Your task to perform on an android device: Open Maps and search for coffee Image 0: 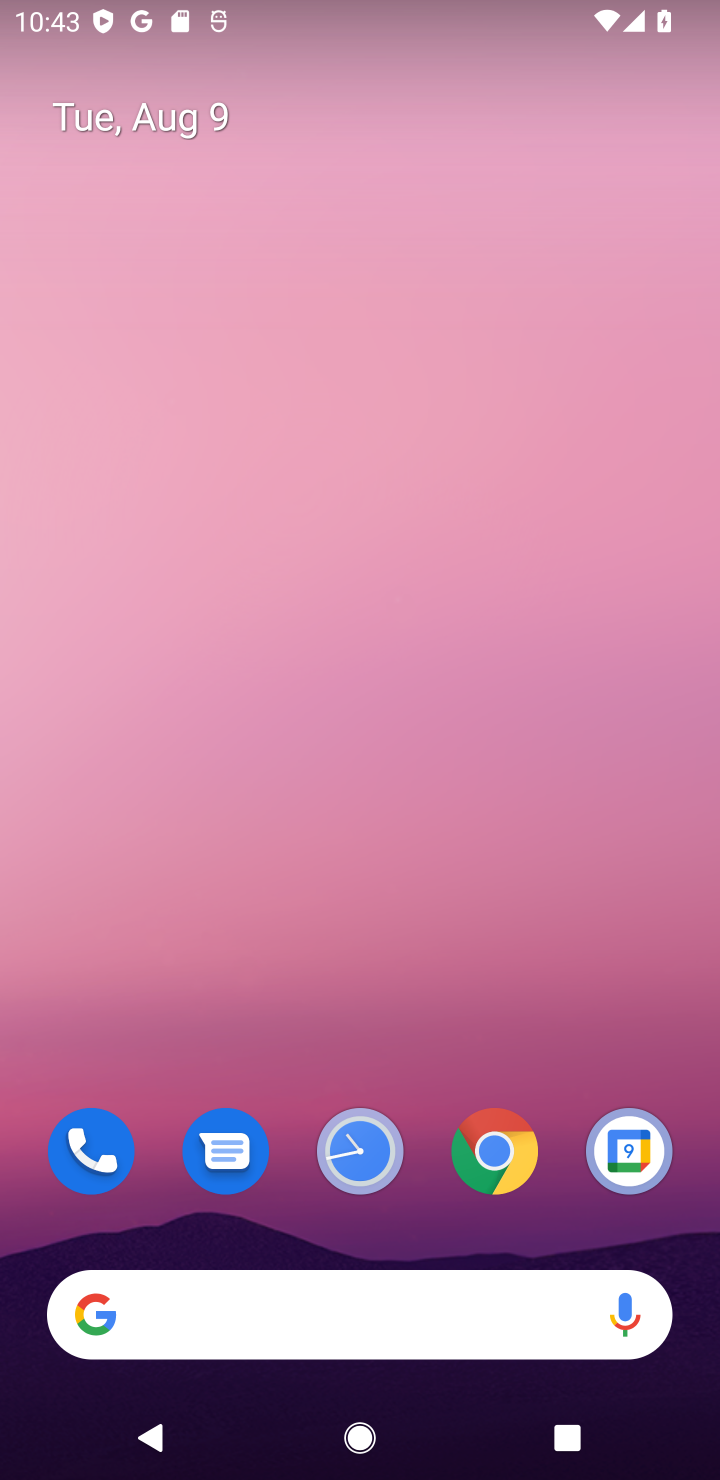
Step 0: drag from (441, 1077) to (186, 394)
Your task to perform on an android device: Open Maps and search for coffee Image 1: 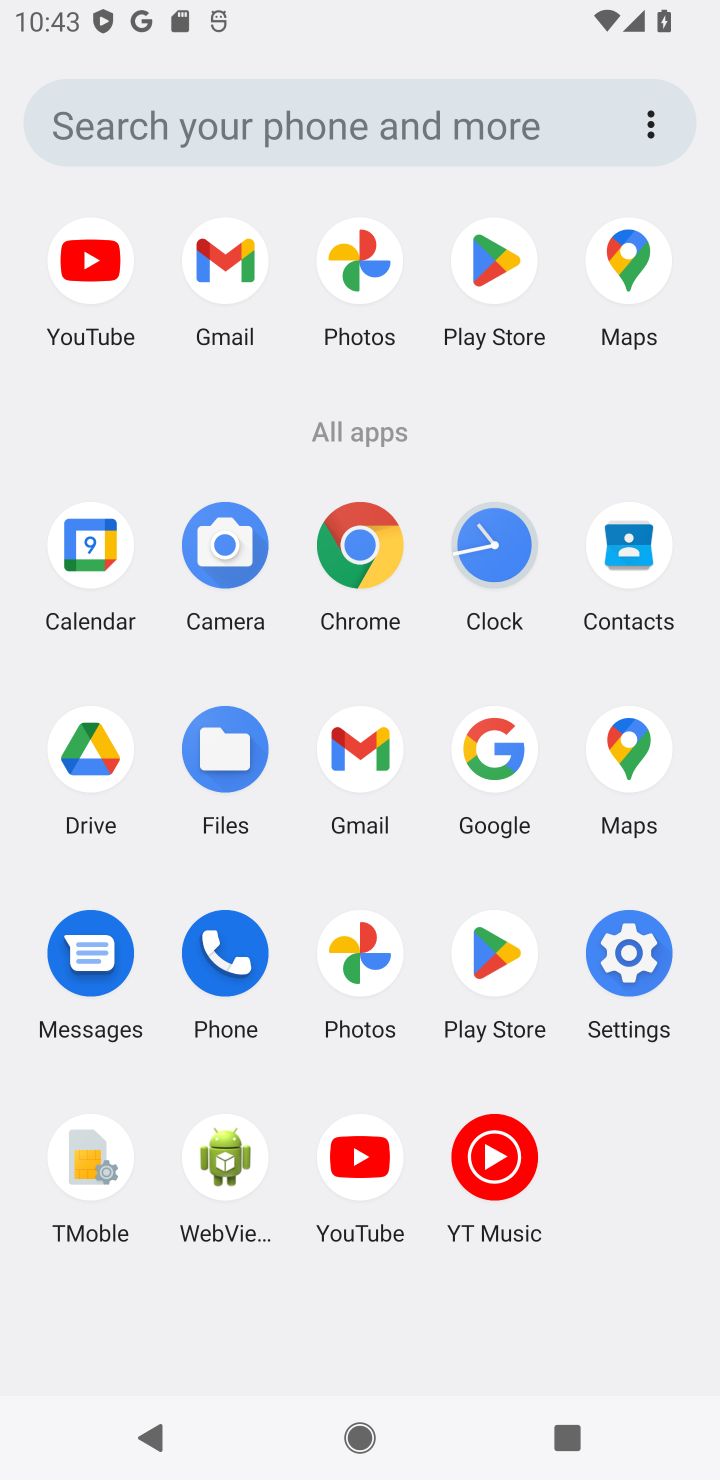
Step 1: click (633, 757)
Your task to perform on an android device: Open Maps and search for coffee Image 2: 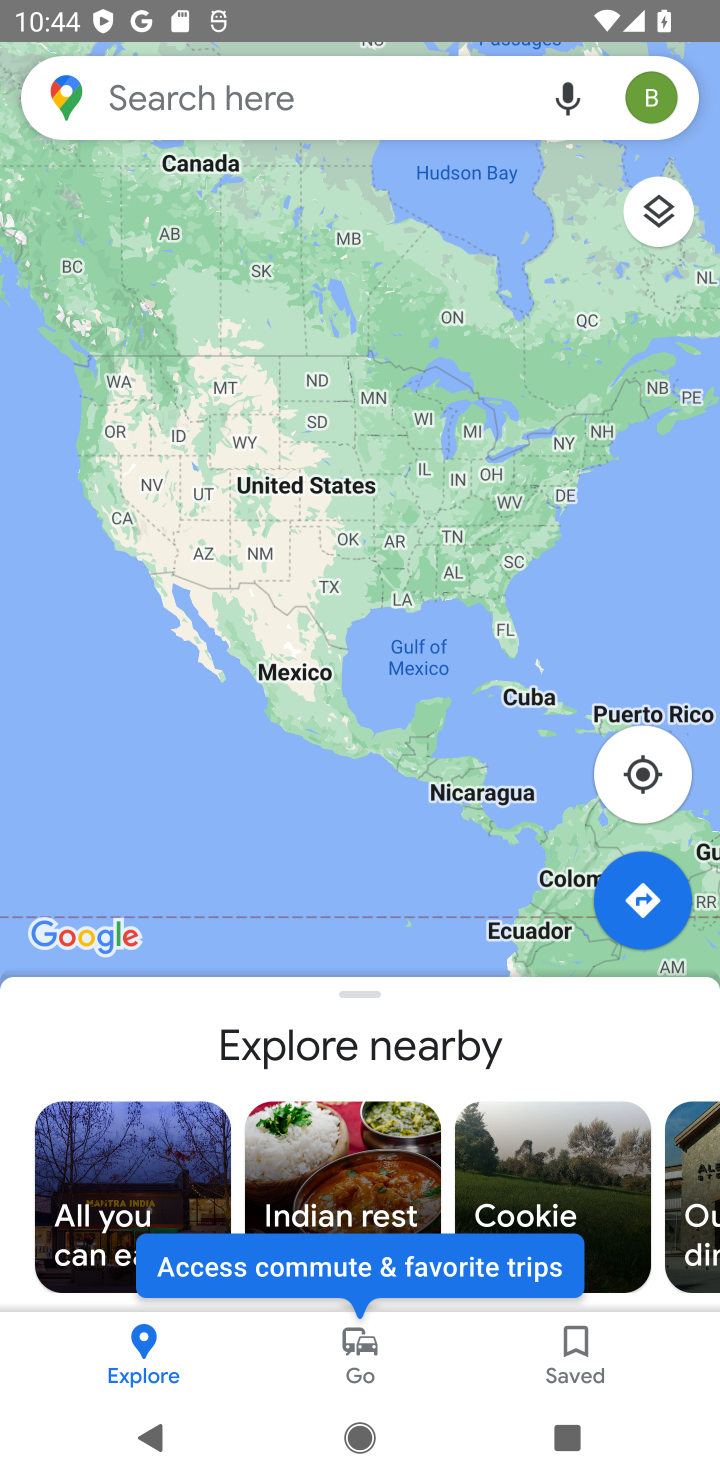
Step 2: click (377, 102)
Your task to perform on an android device: Open Maps and search for coffee Image 3: 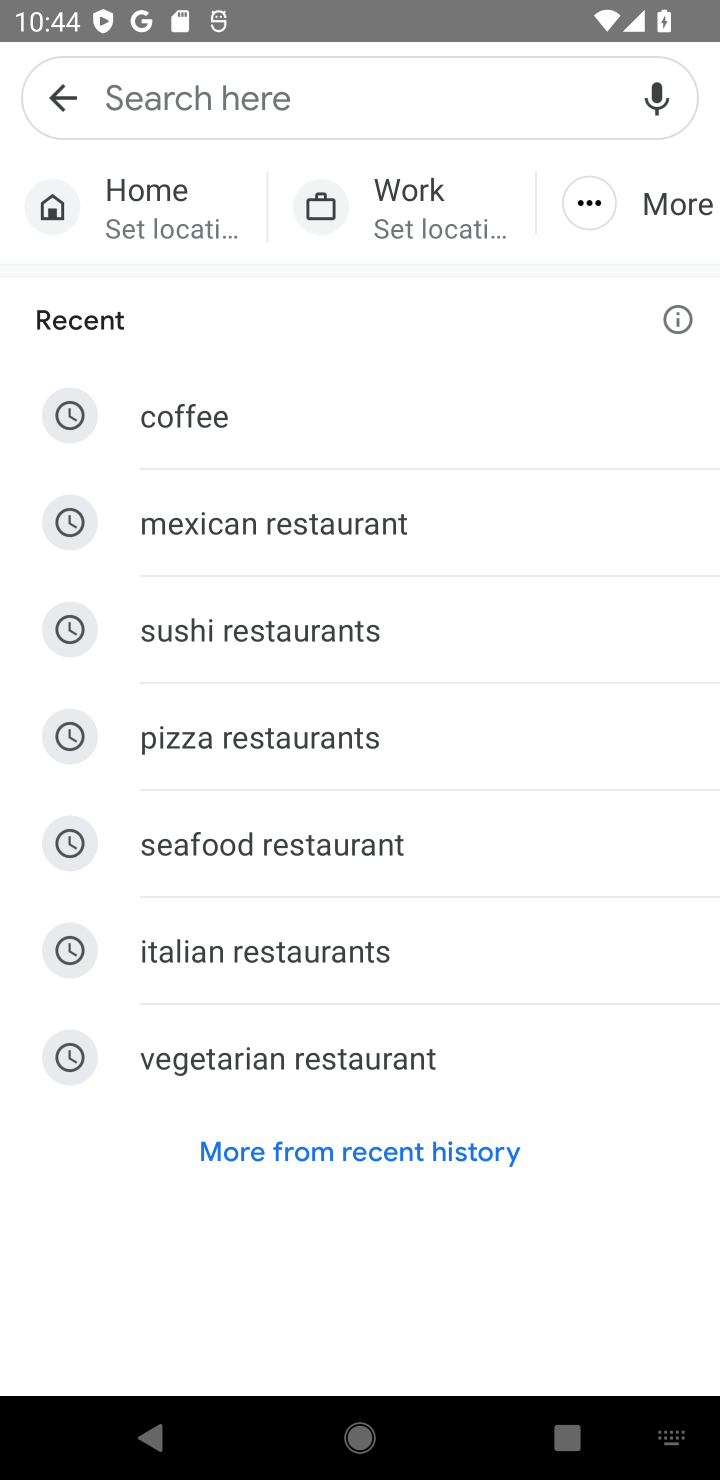
Step 3: click (411, 437)
Your task to perform on an android device: Open Maps and search for coffee Image 4: 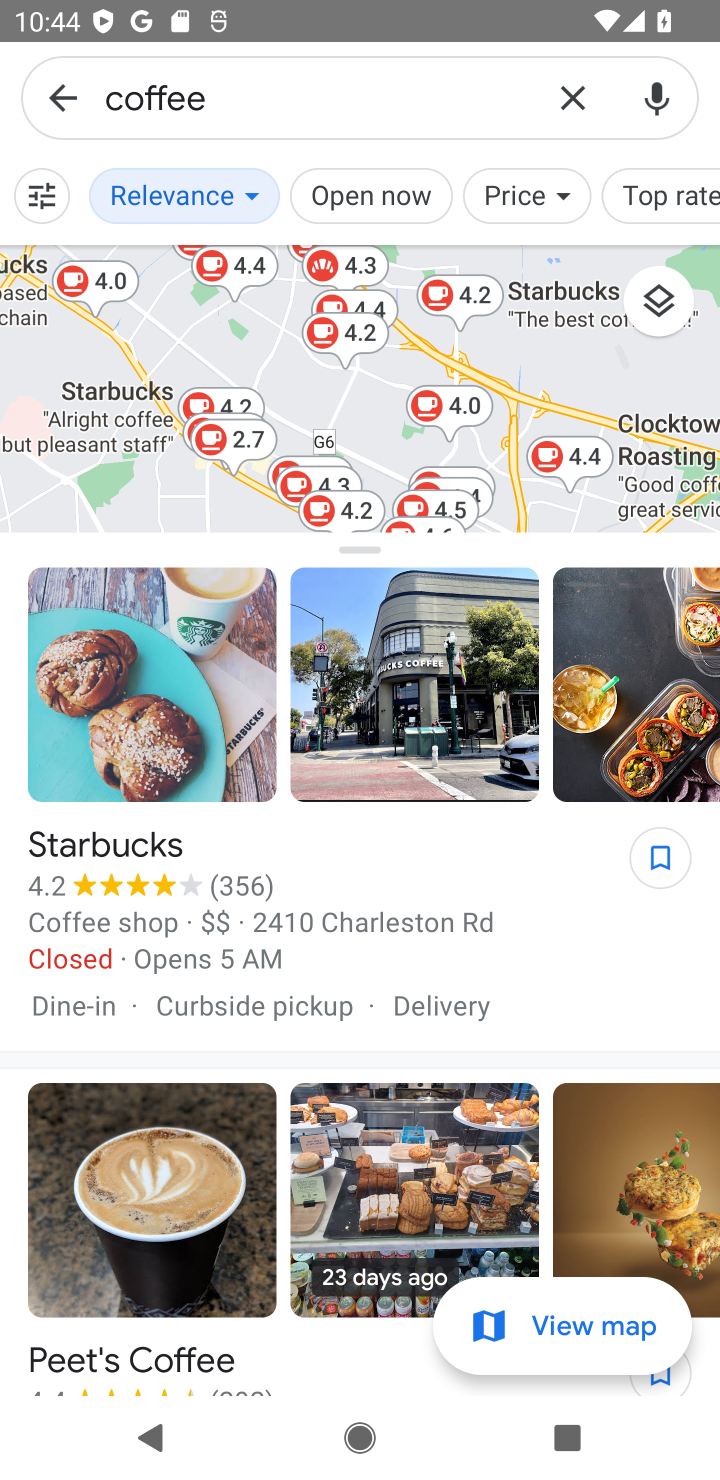
Step 4: task complete